Your task to perform on an android device: Open Google Image 0: 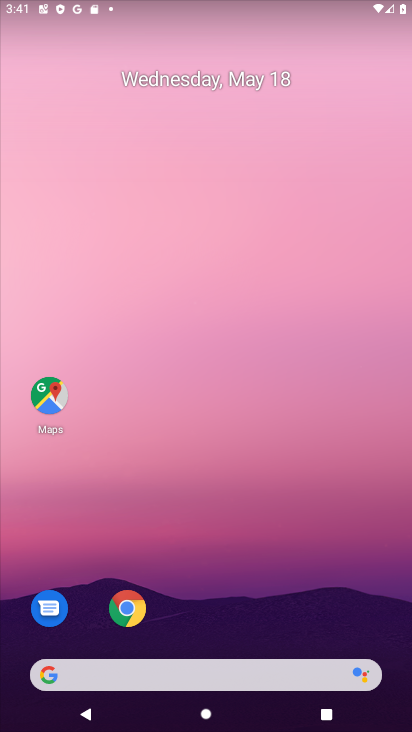
Step 0: drag from (198, 591) to (195, 219)
Your task to perform on an android device: Open Google Image 1: 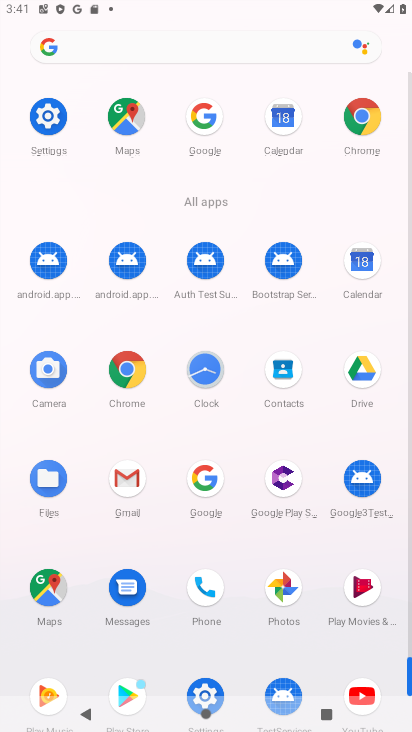
Step 1: click (209, 489)
Your task to perform on an android device: Open Google Image 2: 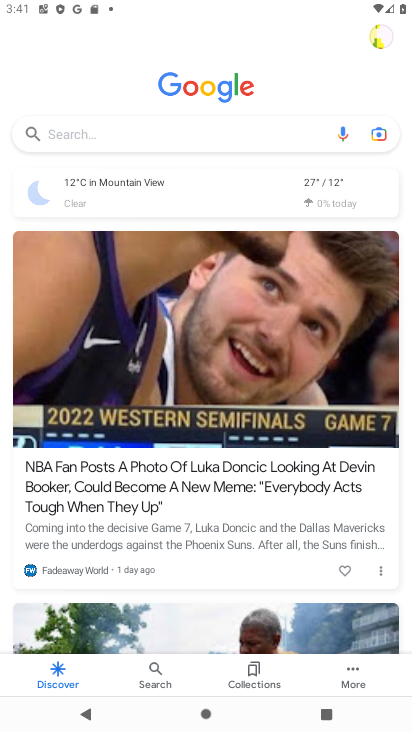
Step 2: task complete